Your task to perform on an android device: What is the news today? Image 0: 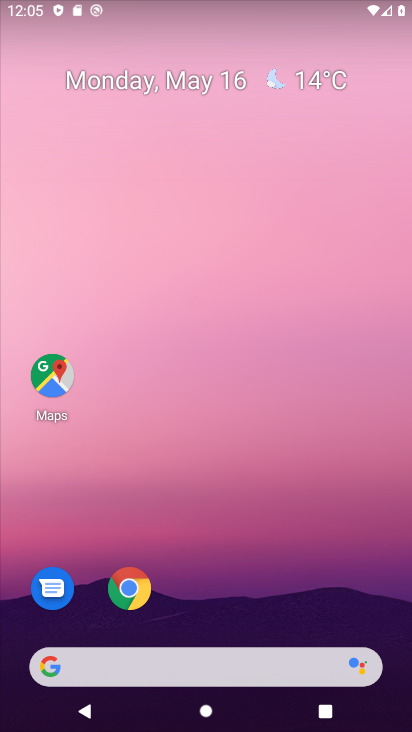
Step 0: click (136, 592)
Your task to perform on an android device: What is the news today? Image 1: 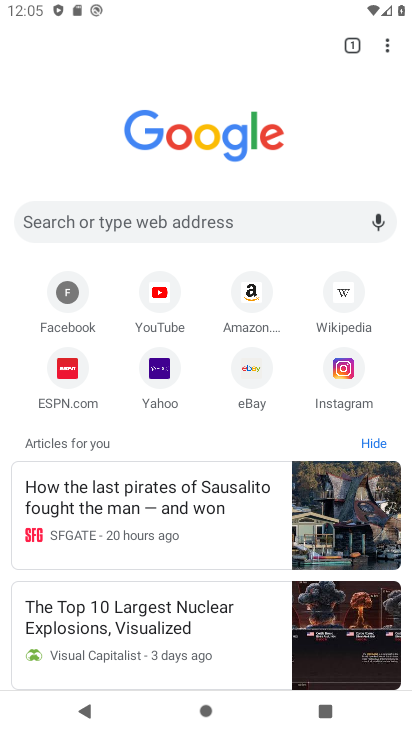
Step 1: click (116, 224)
Your task to perform on an android device: What is the news today? Image 2: 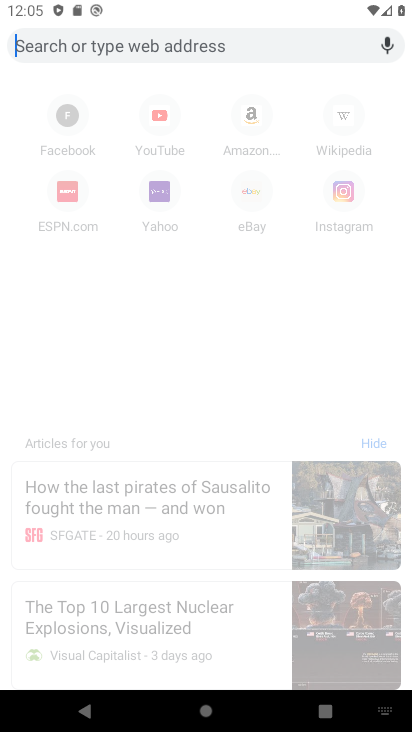
Step 2: type "news"
Your task to perform on an android device: What is the news today? Image 3: 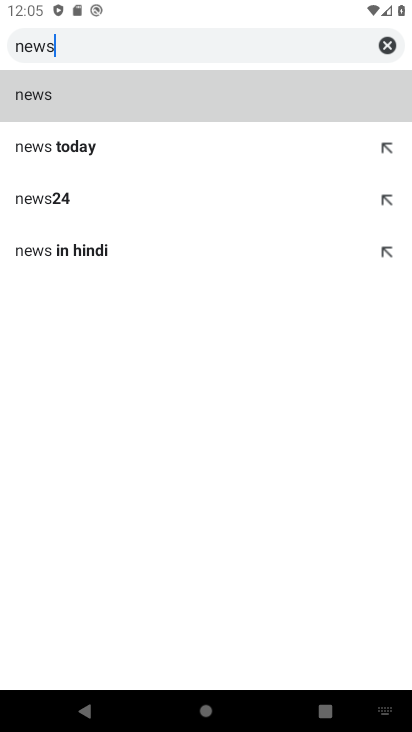
Step 3: click (134, 105)
Your task to perform on an android device: What is the news today? Image 4: 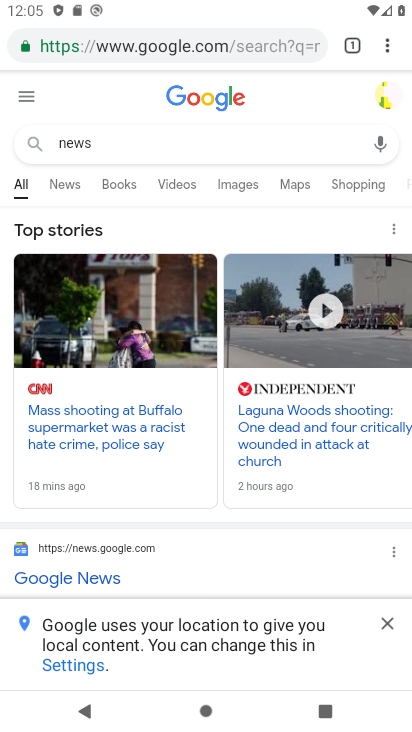
Step 4: task complete